Your task to perform on an android device: Open the web browser Image 0: 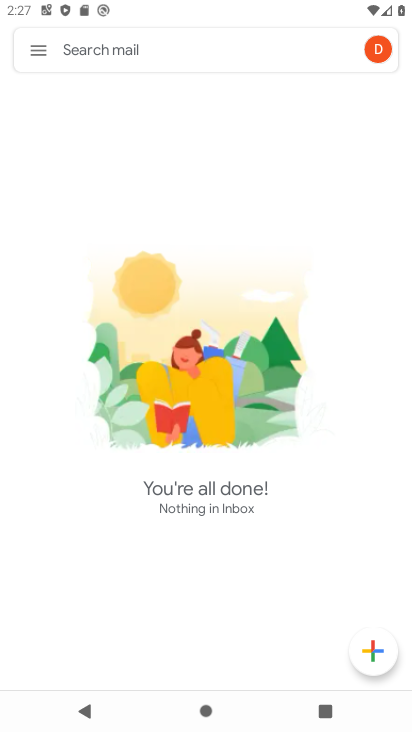
Step 0: press home button
Your task to perform on an android device: Open the web browser Image 1: 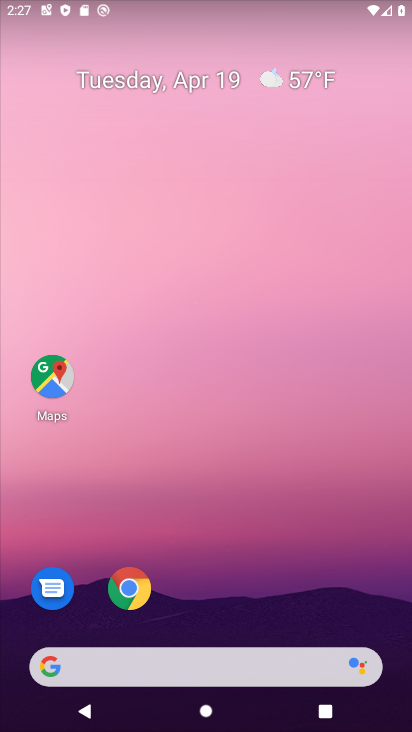
Step 1: click (136, 586)
Your task to perform on an android device: Open the web browser Image 2: 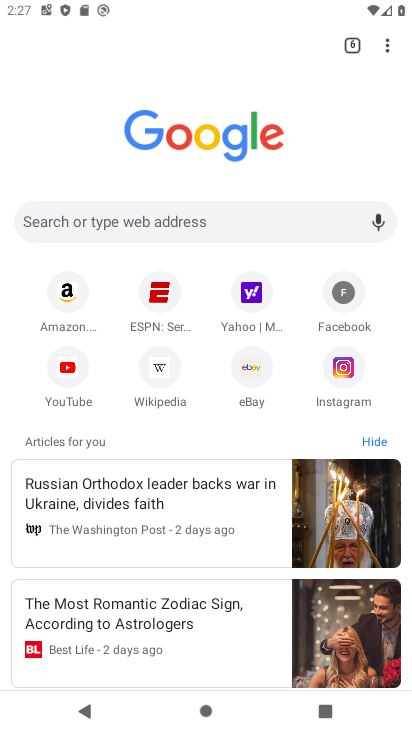
Step 2: task complete